Your task to perform on an android device: toggle airplane mode Image 0: 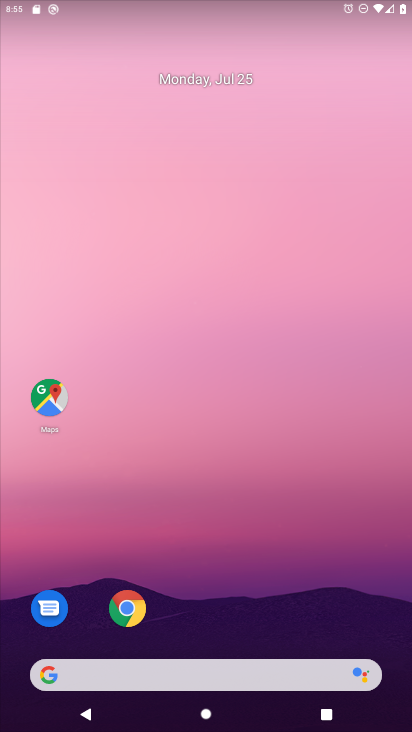
Step 0: drag from (154, 702) to (164, 23)
Your task to perform on an android device: toggle airplane mode Image 1: 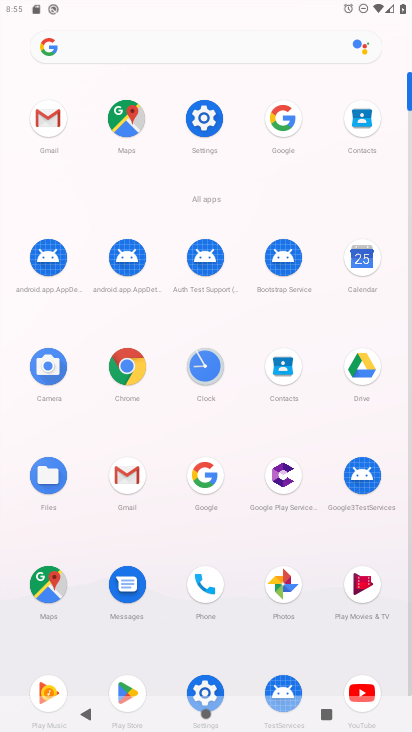
Step 1: click (206, 109)
Your task to perform on an android device: toggle airplane mode Image 2: 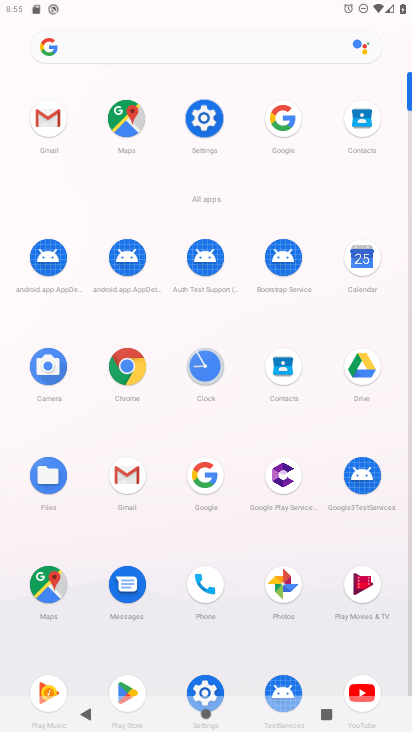
Step 2: click (206, 109)
Your task to perform on an android device: toggle airplane mode Image 3: 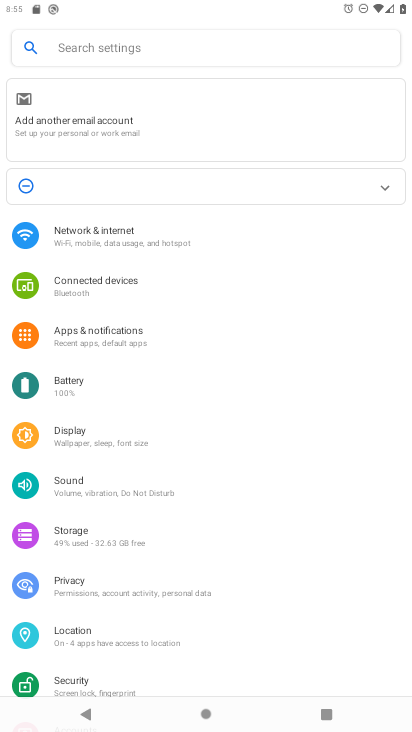
Step 3: click (166, 140)
Your task to perform on an android device: toggle airplane mode Image 4: 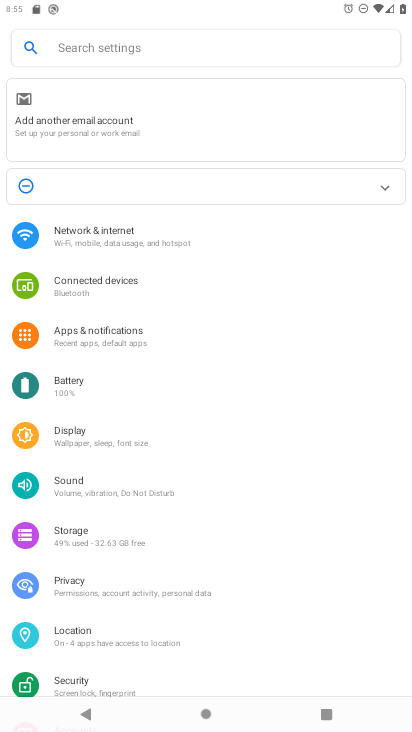
Step 4: click (166, 140)
Your task to perform on an android device: toggle airplane mode Image 5: 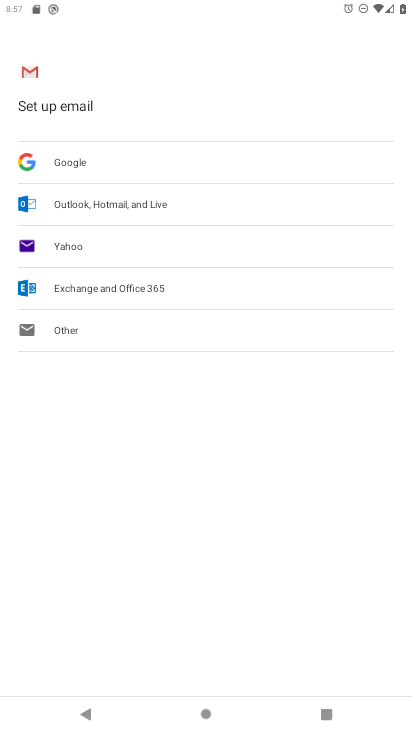
Step 5: press home button
Your task to perform on an android device: toggle airplane mode Image 6: 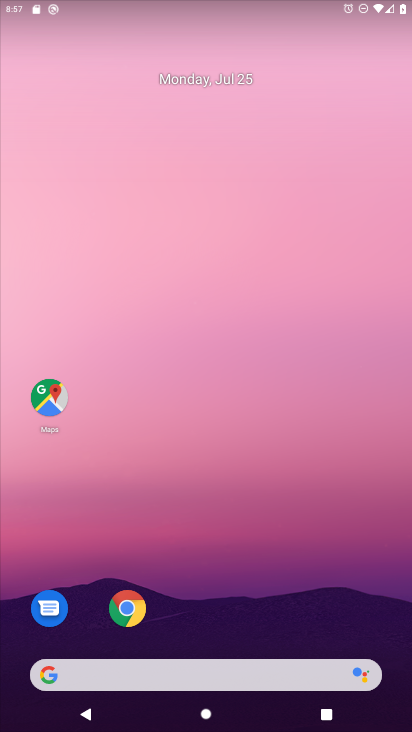
Step 6: drag from (147, 578) to (248, 22)
Your task to perform on an android device: toggle airplane mode Image 7: 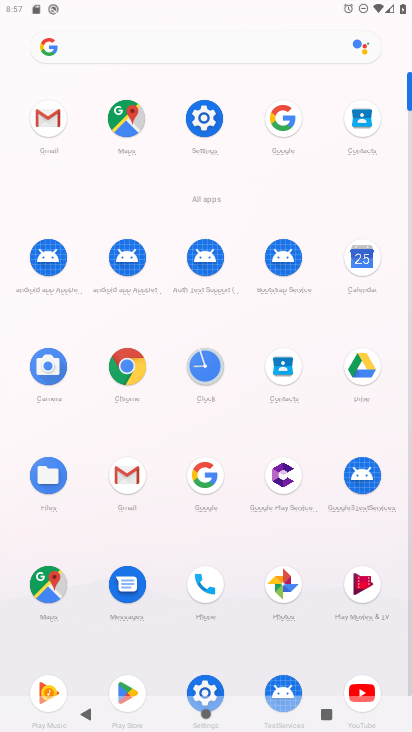
Step 7: click (216, 102)
Your task to perform on an android device: toggle airplane mode Image 8: 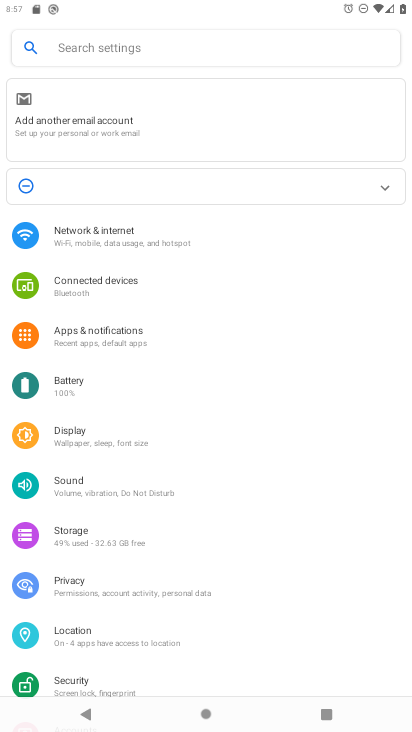
Step 8: click (163, 237)
Your task to perform on an android device: toggle airplane mode Image 9: 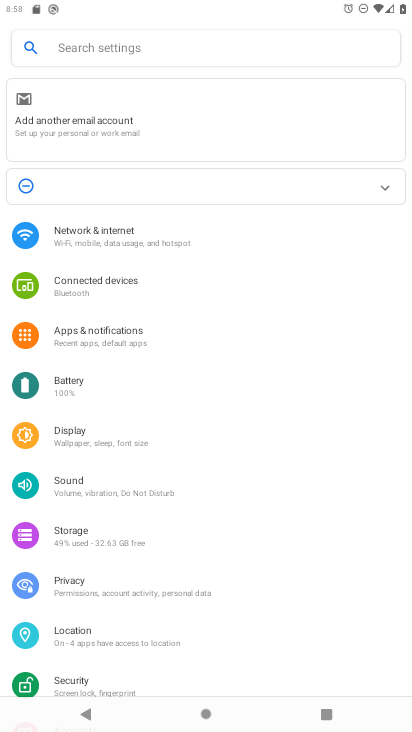
Step 9: click (164, 237)
Your task to perform on an android device: toggle airplane mode Image 10: 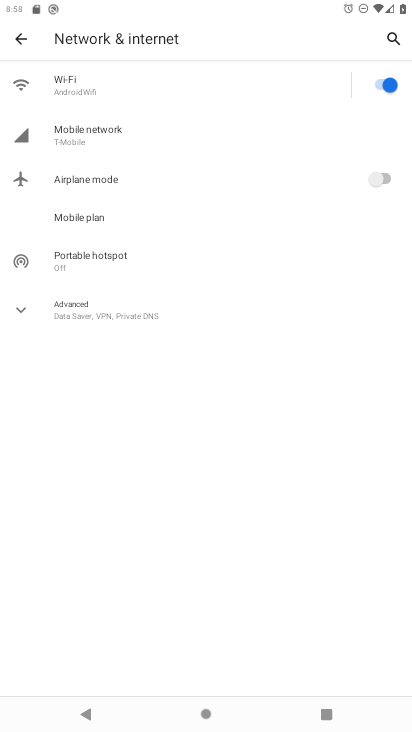
Step 10: click (388, 182)
Your task to perform on an android device: toggle airplane mode Image 11: 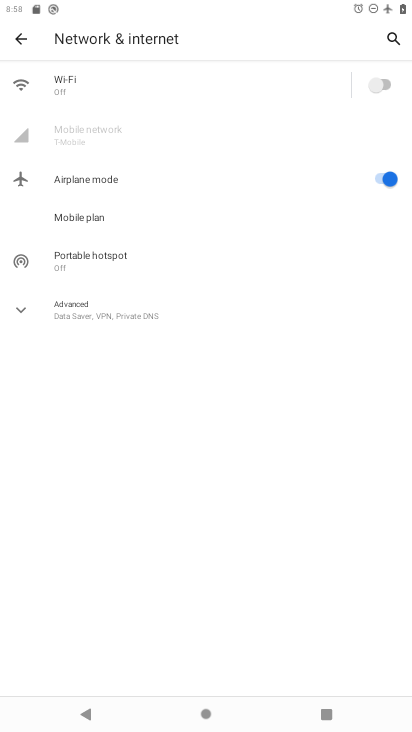
Step 11: task complete